Your task to perform on an android device: turn on showing notifications on the lock screen Image 0: 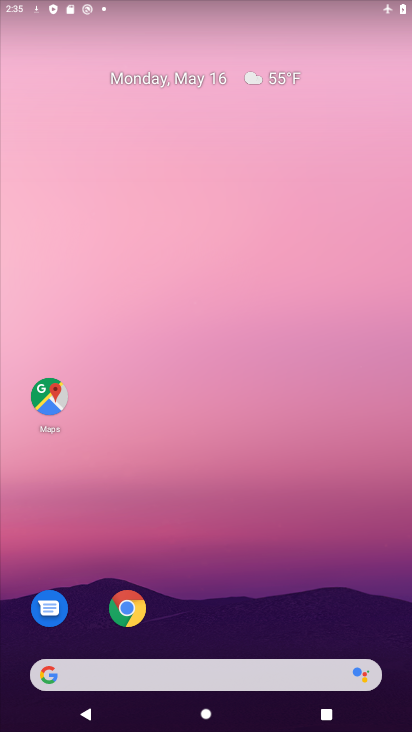
Step 0: drag from (218, 622) to (185, 191)
Your task to perform on an android device: turn on showing notifications on the lock screen Image 1: 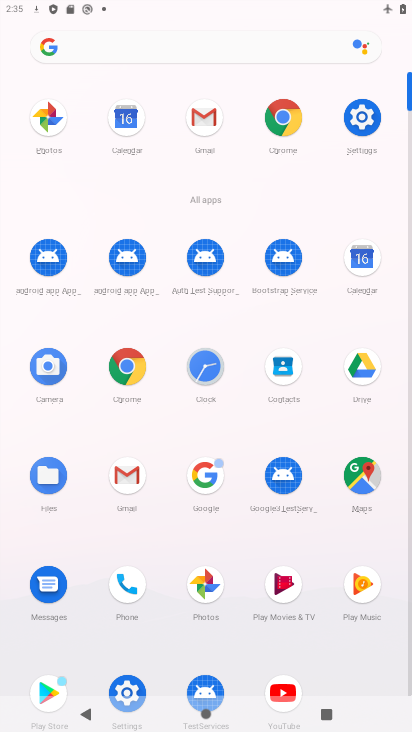
Step 1: click (343, 119)
Your task to perform on an android device: turn on showing notifications on the lock screen Image 2: 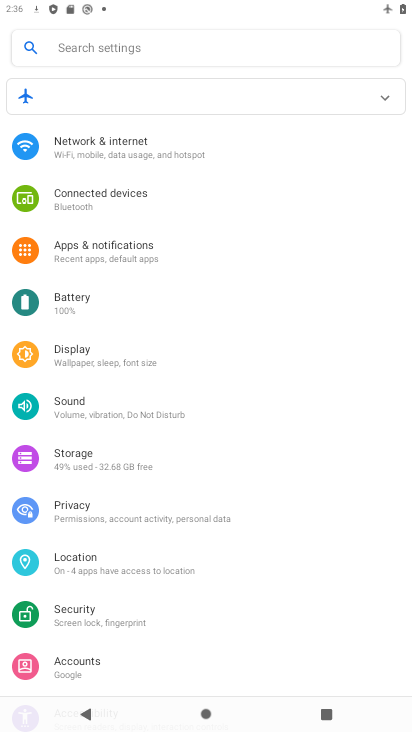
Step 2: click (134, 251)
Your task to perform on an android device: turn on showing notifications on the lock screen Image 3: 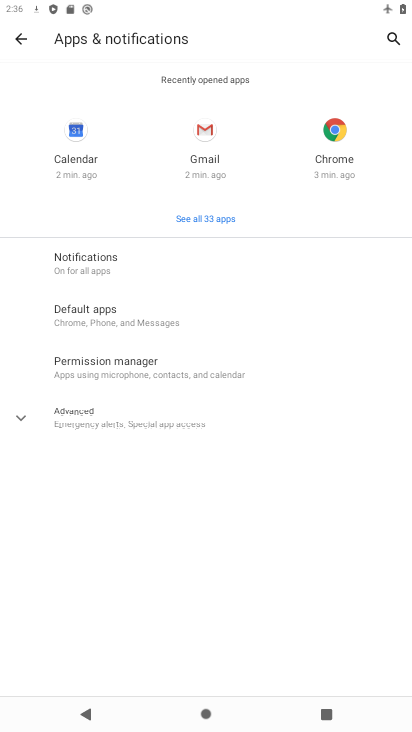
Step 3: click (134, 251)
Your task to perform on an android device: turn on showing notifications on the lock screen Image 4: 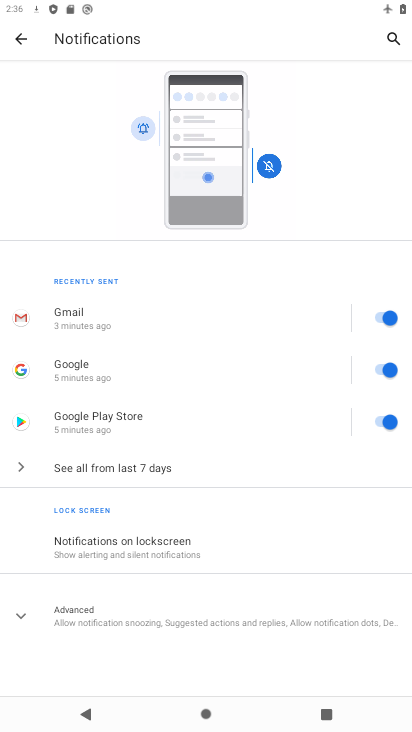
Step 4: click (199, 559)
Your task to perform on an android device: turn on showing notifications on the lock screen Image 5: 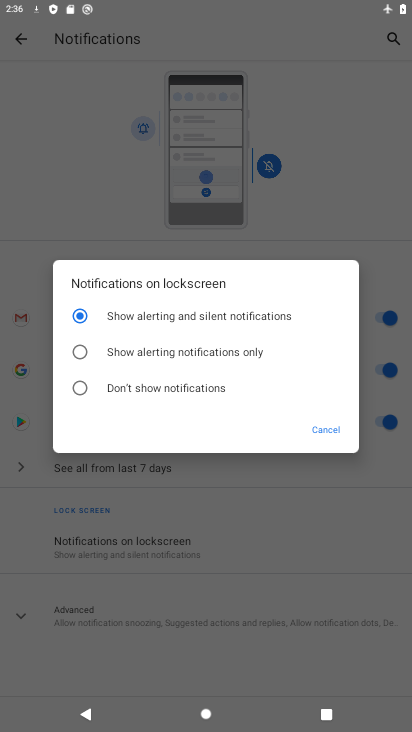
Step 5: task complete